Your task to perform on an android device: move an email to a new category in the gmail app Image 0: 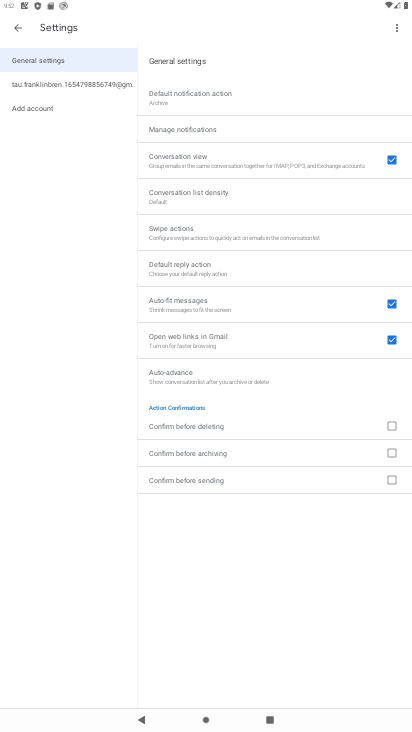
Step 0: press home button
Your task to perform on an android device: move an email to a new category in the gmail app Image 1: 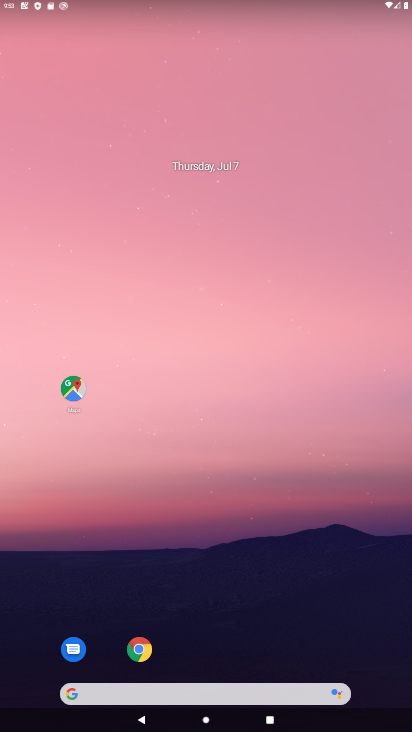
Step 1: drag from (277, 562) to (266, 128)
Your task to perform on an android device: move an email to a new category in the gmail app Image 2: 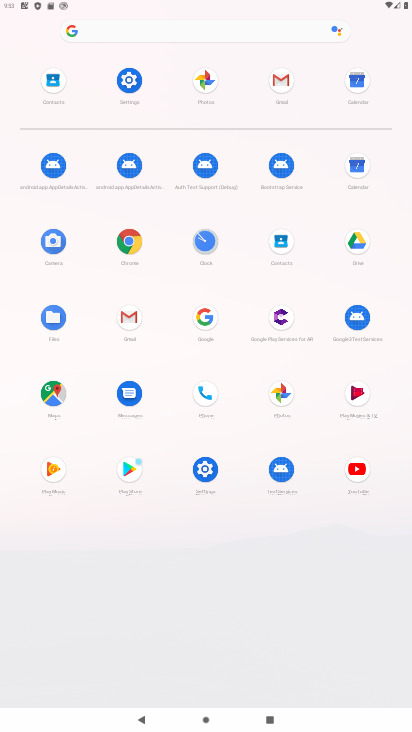
Step 2: click (133, 321)
Your task to perform on an android device: move an email to a new category in the gmail app Image 3: 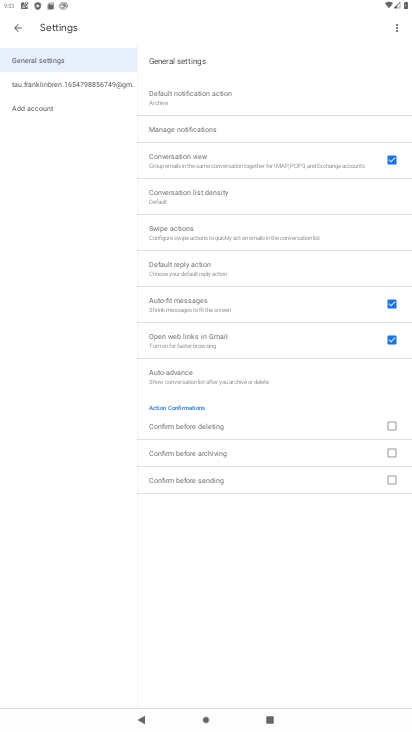
Step 3: press home button
Your task to perform on an android device: move an email to a new category in the gmail app Image 4: 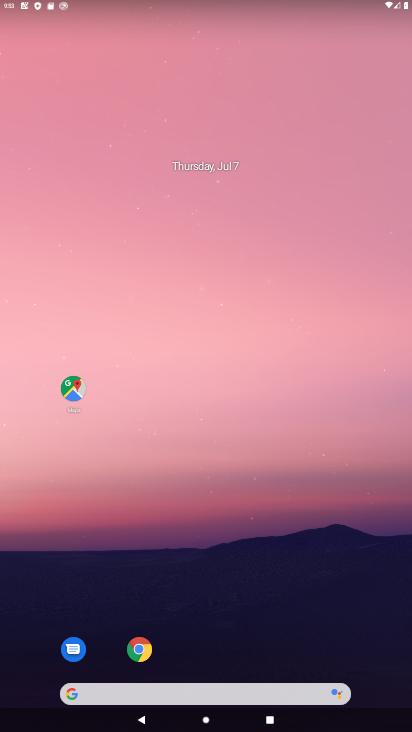
Step 4: click (236, 551)
Your task to perform on an android device: move an email to a new category in the gmail app Image 5: 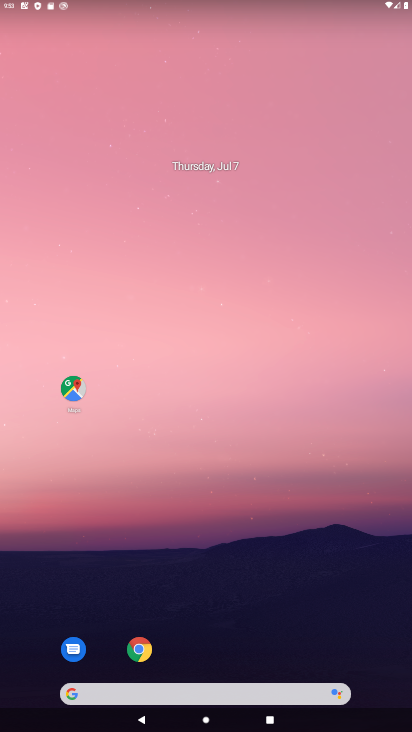
Step 5: drag from (237, 549) to (250, 473)
Your task to perform on an android device: move an email to a new category in the gmail app Image 6: 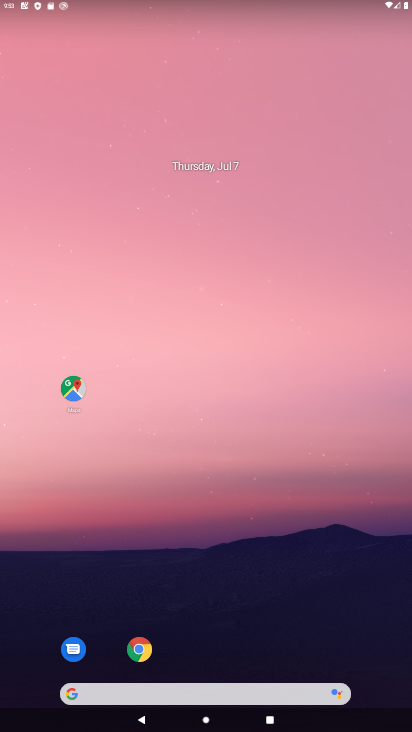
Step 6: drag from (254, 506) to (320, 125)
Your task to perform on an android device: move an email to a new category in the gmail app Image 7: 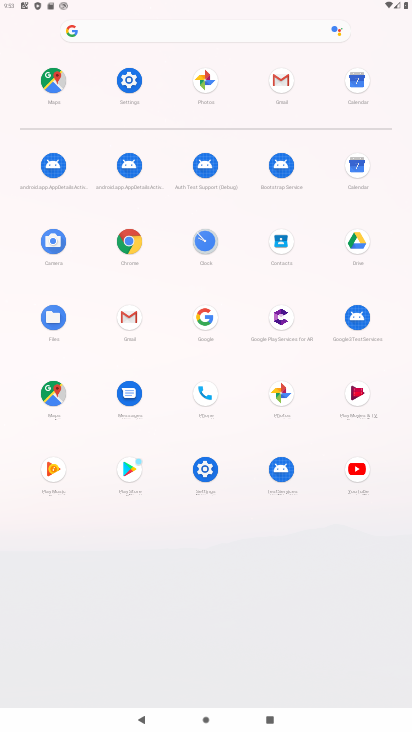
Step 7: click (121, 322)
Your task to perform on an android device: move an email to a new category in the gmail app Image 8: 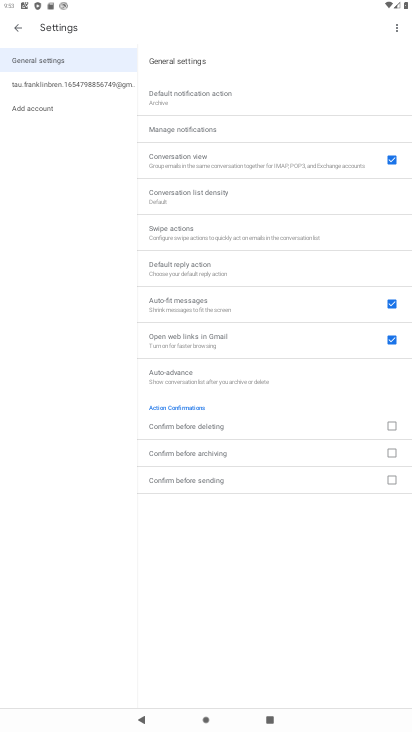
Step 8: click (17, 27)
Your task to perform on an android device: move an email to a new category in the gmail app Image 9: 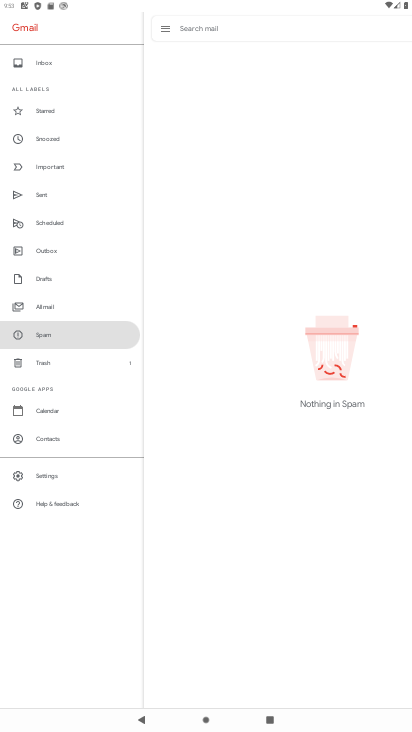
Step 9: click (51, 62)
Your task to perform on an android device: move an email to a new category in the gmail app Image 10: 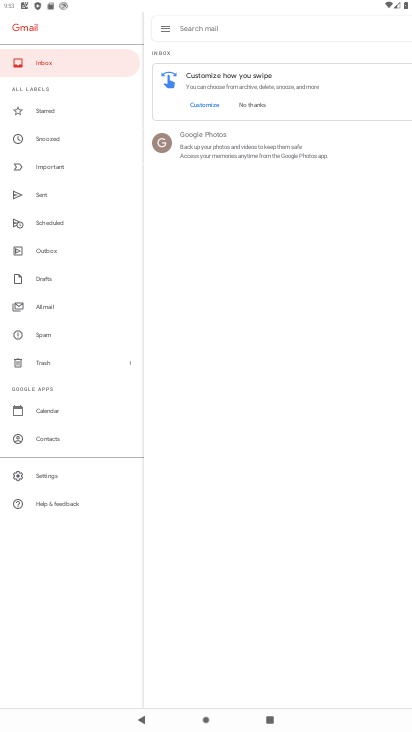
Step 10: click (161, 144)
Your task to perform on an android device: move an email to a new category in the gmail app Image 11: 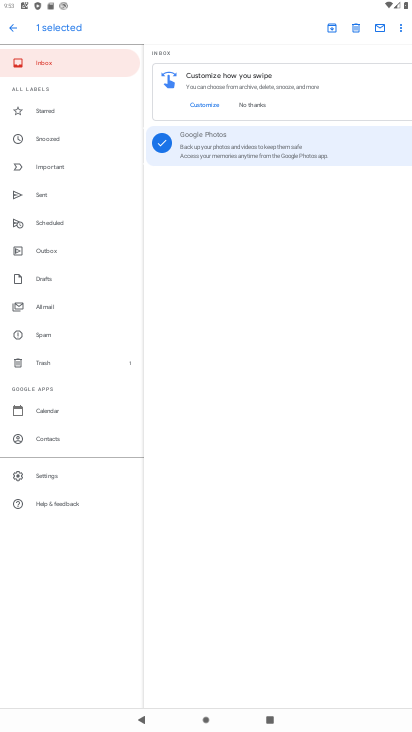
Step 11: click (396, 25)
Your task to perform on an android device: move an email to a new category in the gmail app Image 12: 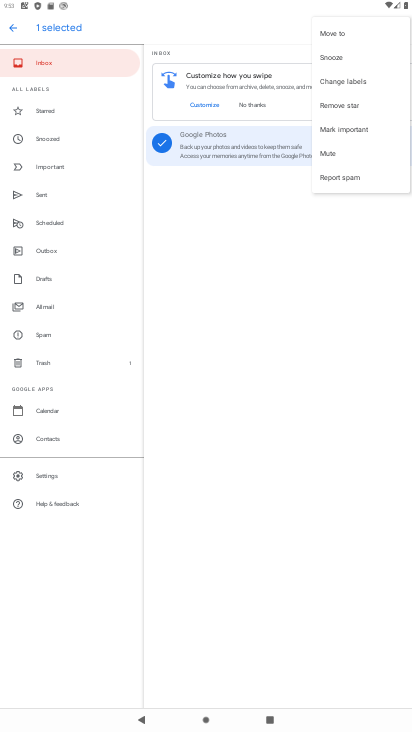
Step 12: click (337, 31)
Your task to perform on an android device: move an email to a new category in the gmail app Image 13: 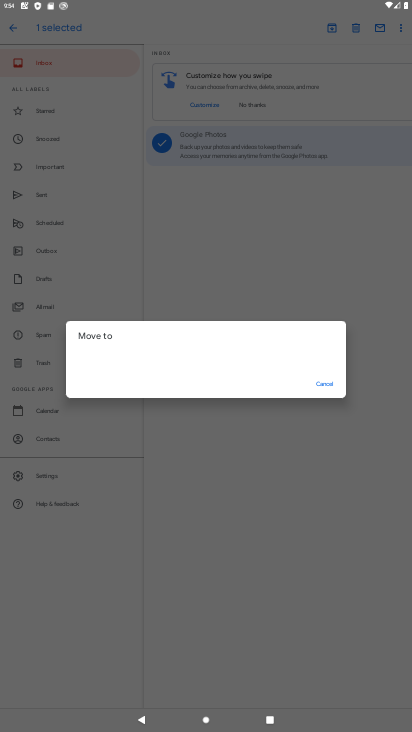
Step 13: click (275, 375)
Your task to perform on an android device: move an email to a new category in the gmail app Image 14: 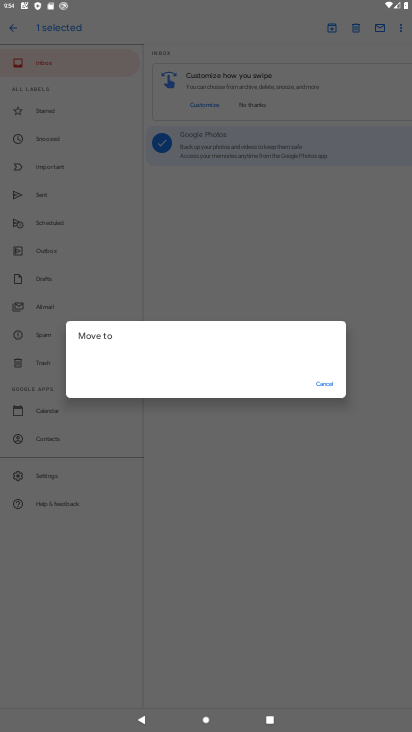
Step 14: task complete